Your task to perform on an android device: create a new album in the google photos Image 0: 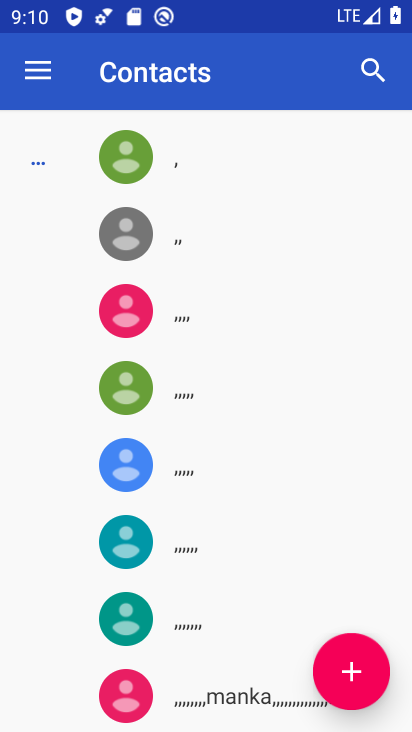
Step 0: press home button
Your task to perform on an android device: create a new album in the google photos Image 1: 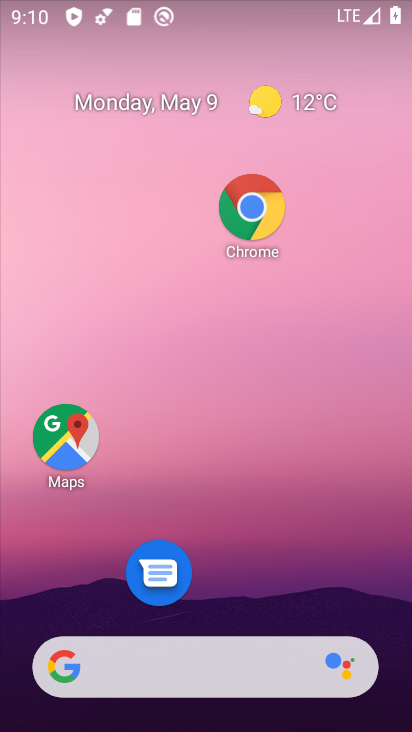
Step 1: drag from (255, 625) to (268, 269)
Your task to perform on an android device: create a new album in the google photos Image 2: 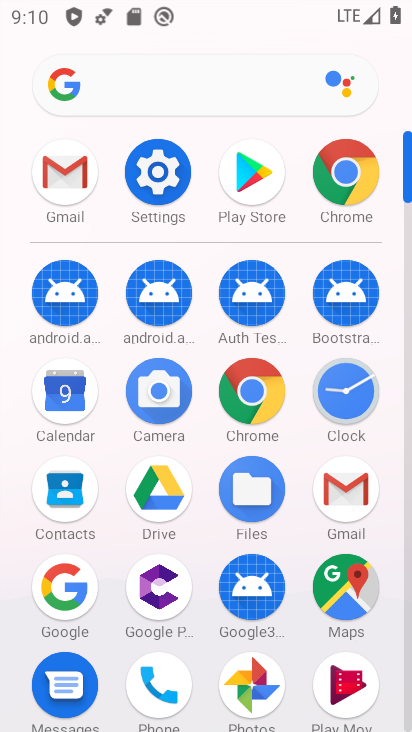
Step 2: click (222, 668)
Your task to perform on an android device: create a new album in the google photos Image 3: 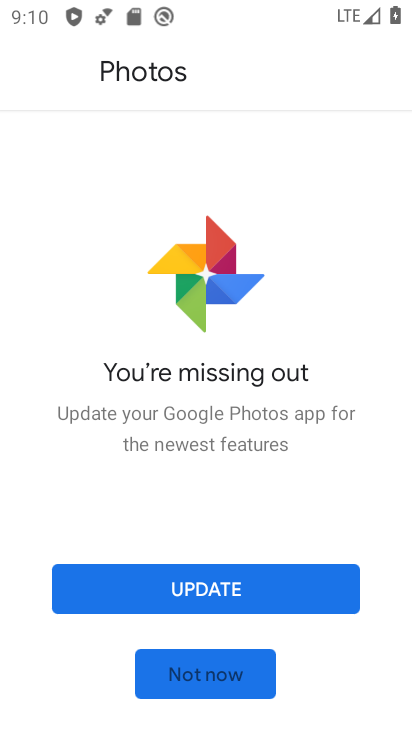
Step 3: click (212, 669)
Your task to perform on an android device: create a new album in the google photos Image 4: 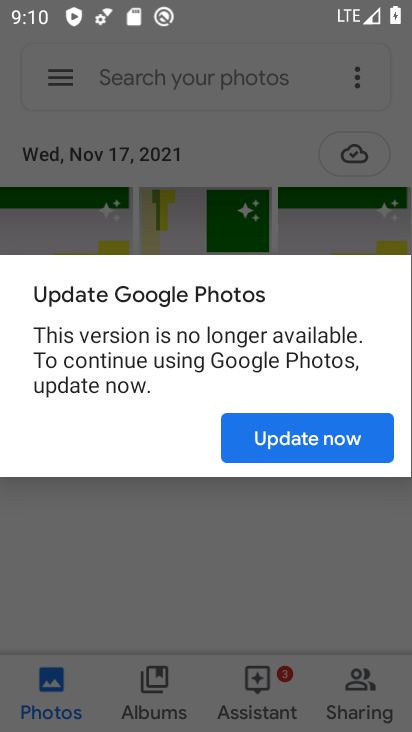
Step 4: task complete